Your task to perform on an android device: open sync settings in chrome Image 0: 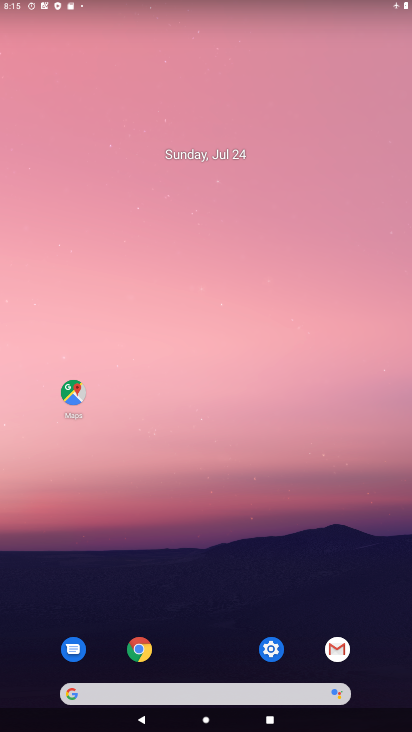
Step 0: click (137, 648)
Your task to perform on an android device: open sync settings in chrome Image 1: 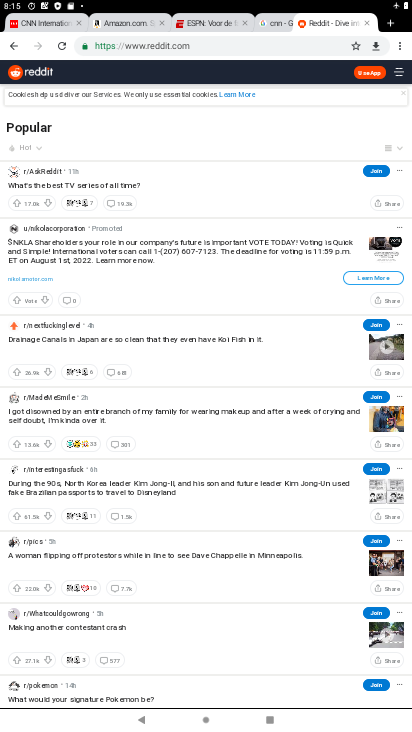
Step 1: click (398, 44)
Your task to perform on an android device: open sync settings in chrome Image 2: 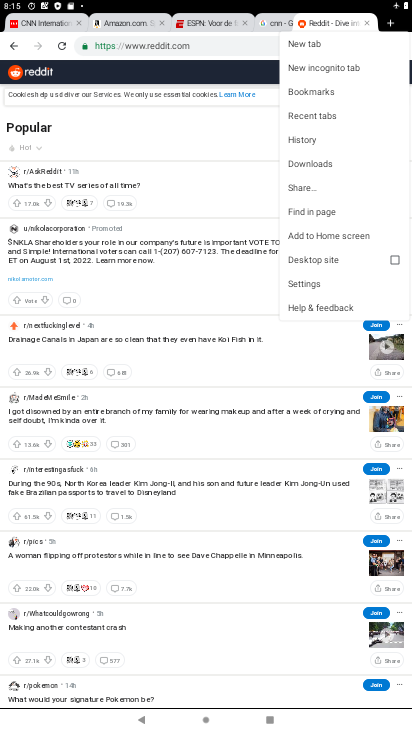
Step 2: click (311, 282)
Your task to perform on an android device: open sync settings in chrome Image 3: 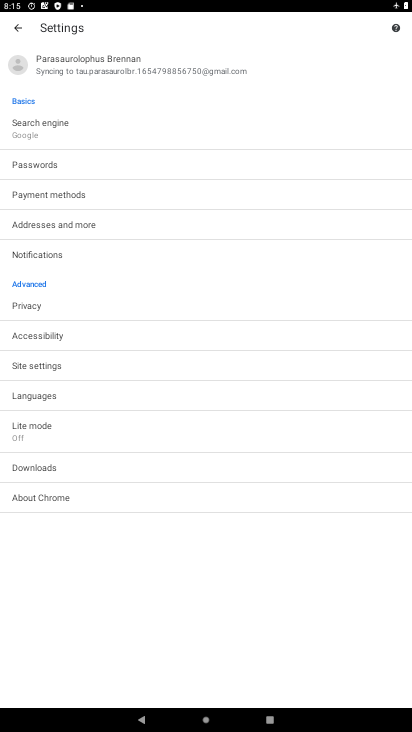
Step 3: click (46, 362)
Your task to perform on an android device: open sync settings in chrome Image 4: 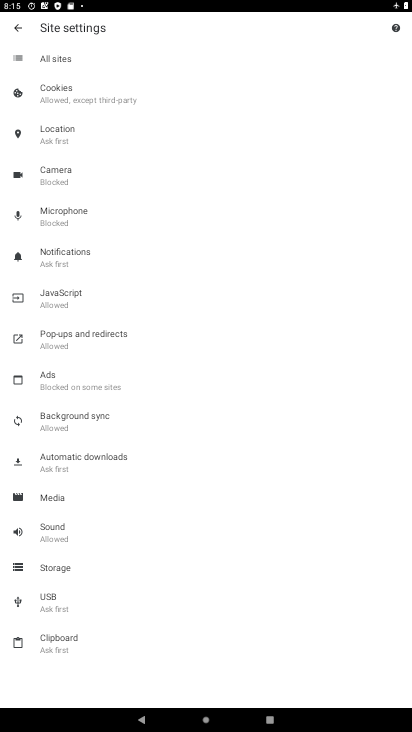
Step 4: click (80, 418)
Your task to perform on an android device: open sync settings in chrome Image 5: 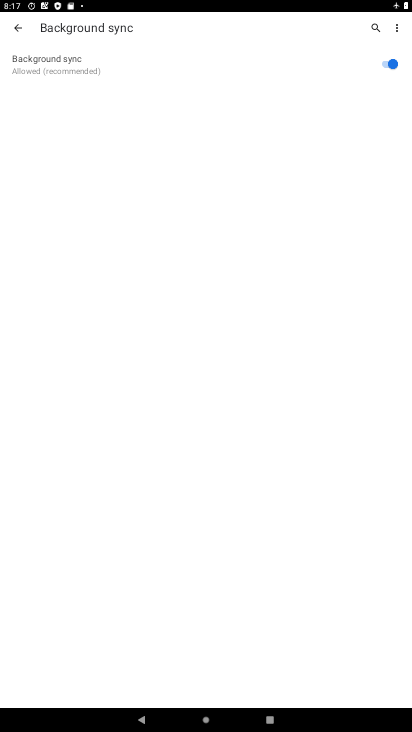
Step 5: task complete